Your task to perform on an android device: toggle pop-ups in chrome Image 0: 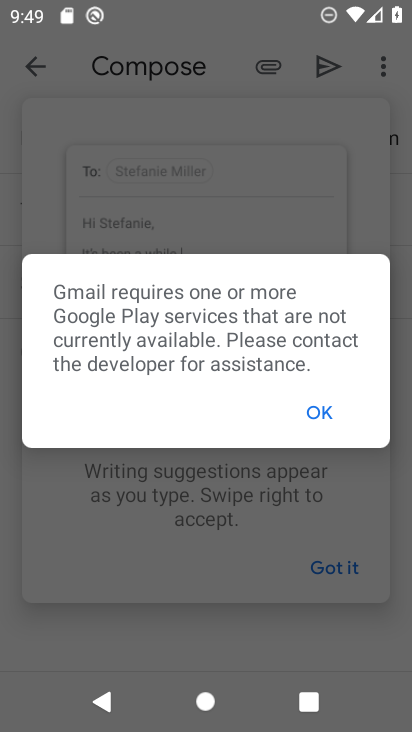
Step 0: press home button
Your task to perform on an android device: toggle pop-ups in chrome Image 1: 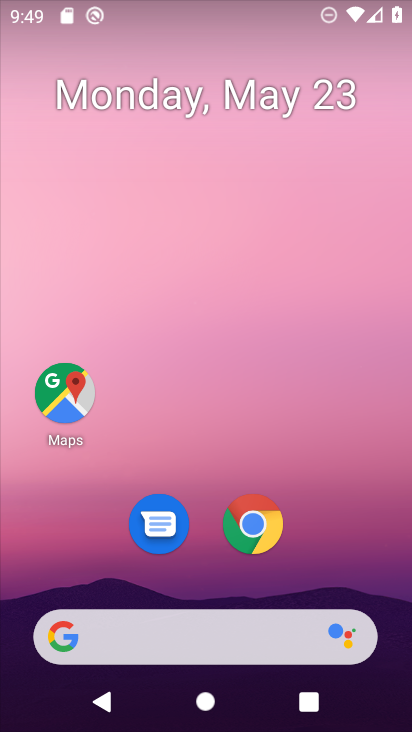
Step 1: click (212, 505)
Your task to perform on an android device: toggle pop-ups in chrome Image 2: 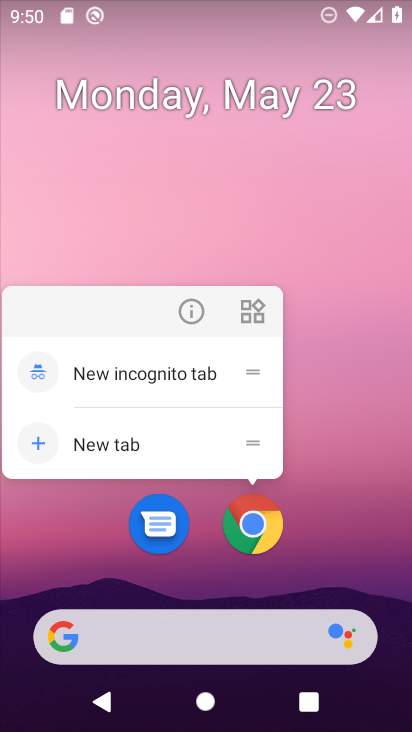
Step 2: click (253, 529)
Your task to perform on an android device: toggle pop-ups in chrome Image 3: 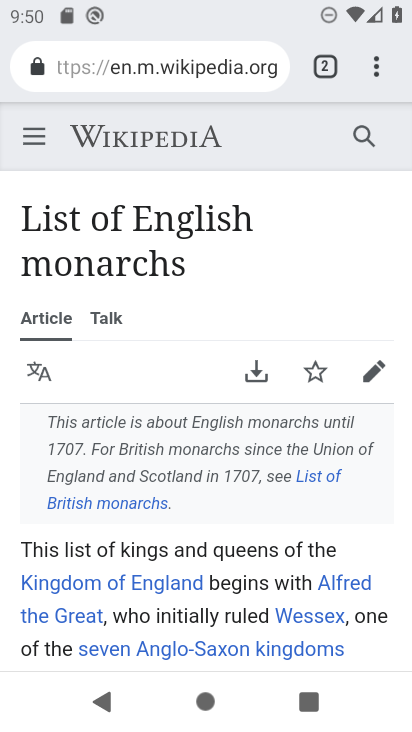
Step 3: click (377, 67)
Your task to perform on an android device: toggle pop-ups in chrome Image 4: 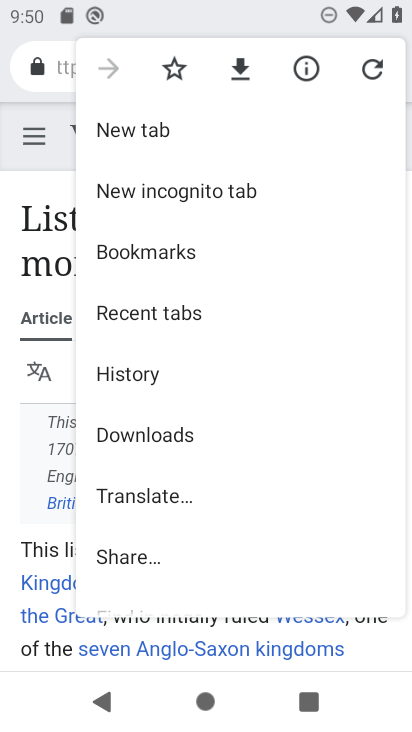
Step 4: drag from (240, 473) to (218, 124)
Your task to perform on an android device: toggle pop-ups in chrome Image 5: 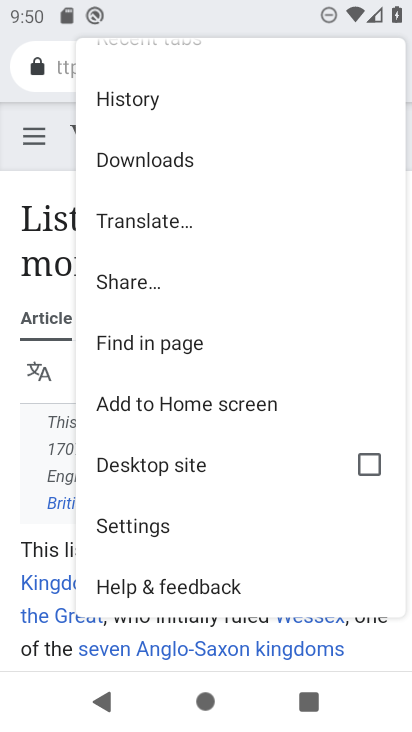
Step 5: click (178, 526)
Your task to perform on an android device: toggle pop-ups in chrome Image 6: 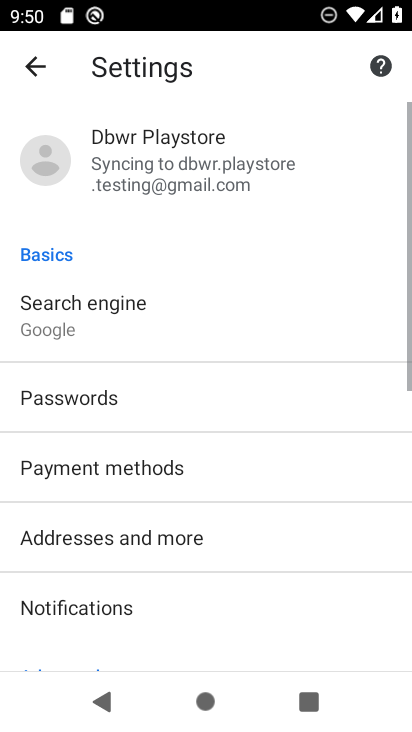
Step 6: drag from (233, 522) to (243, 120)
Your task to perform on an android device: toggle pop-ups in chrome Image 7: 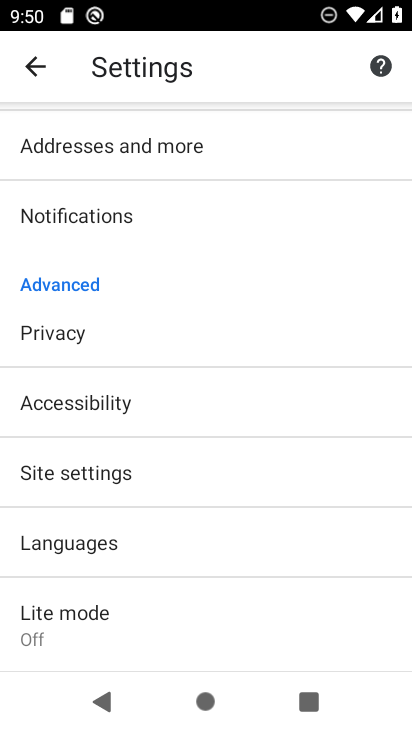
Step 7: click (205, 465)
Your task to perform on an android device: toggle pop-ups in chrome Image 8: 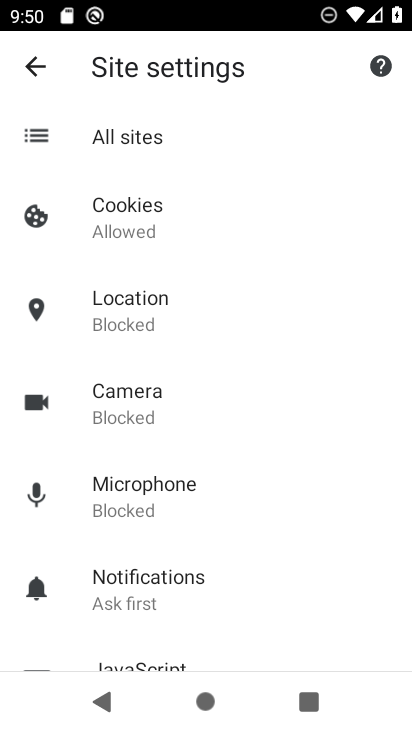
Step 8: drag from (252, 535) to (223, 245)
Your task to perform on an android device: toggle pop-ups in chrome Image 9: 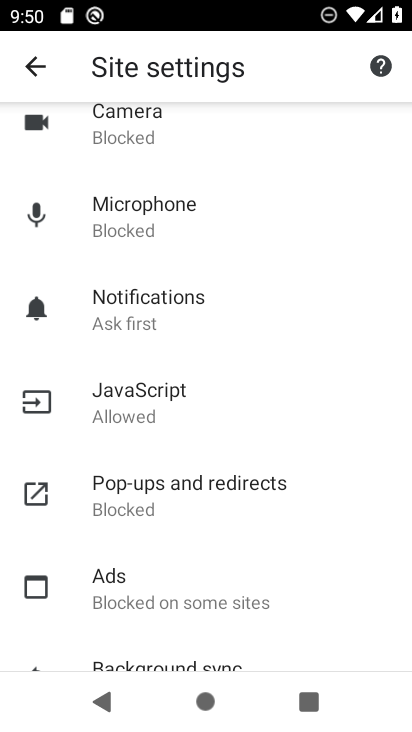
Step 9: click (202, 508)
Your task to perform on an android device: toggle pop-ups in chrome Image 10: 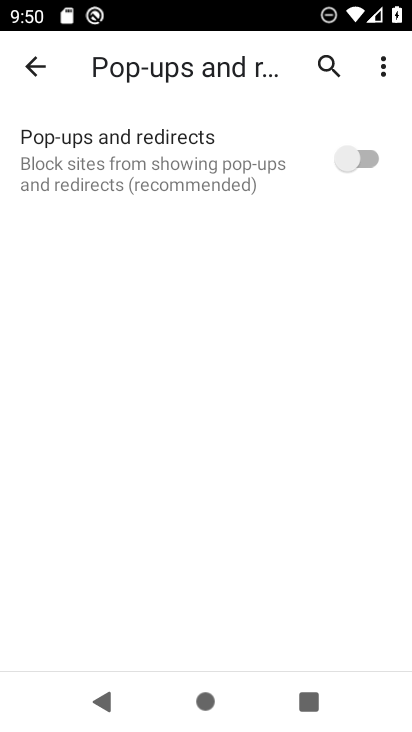
Step 10: click (365, 156)
Your task to perform on an android device: toggle pop-ups in chrome Image 11: 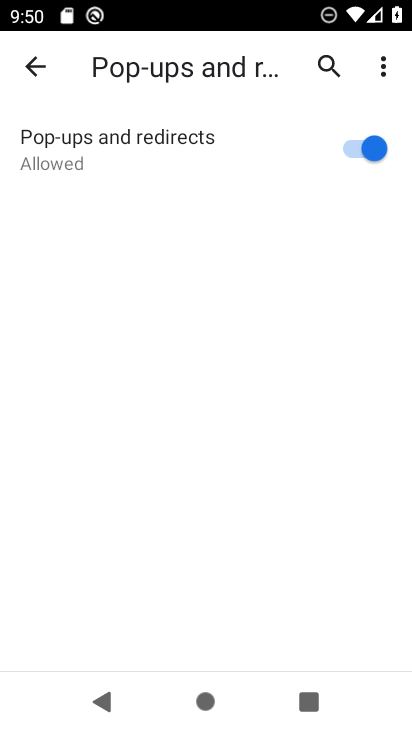
Step 11: task complete